Your task to perform on an android device: Open the web browser Image 0: 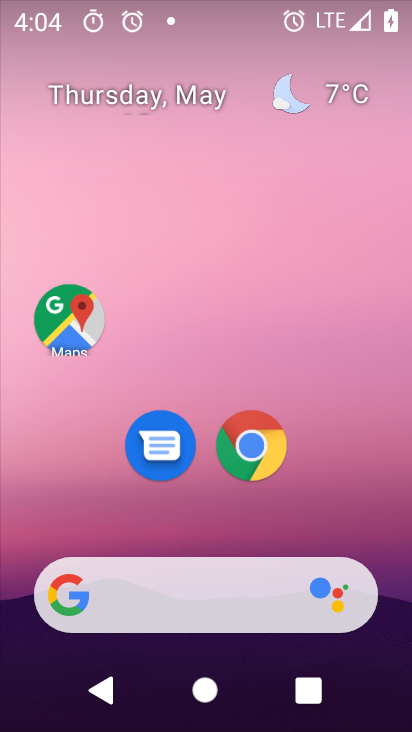
Step 0: click (260, 456)
Your task to perform on an android device: Open the web browser Image 1: 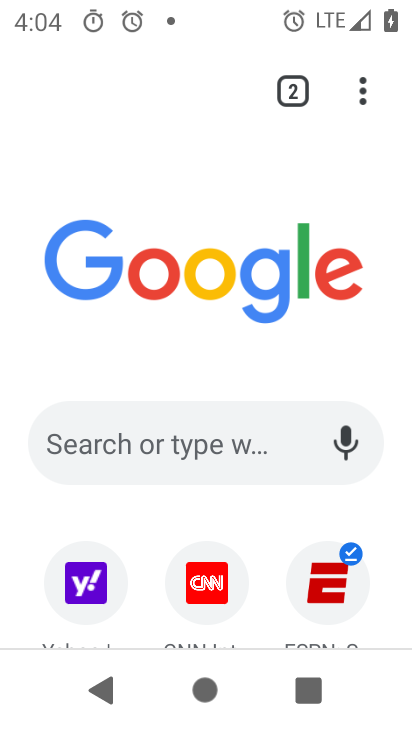
Step 1: task complete